Your task to perform on an android device: delete a single message in the gmail app Image 0: 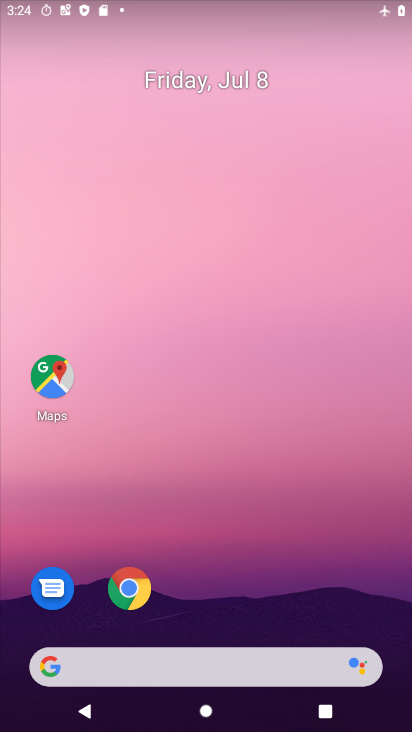
Step 0: press home button
Your task to perform on an android device: delete a single message in the gmail app Image 1: 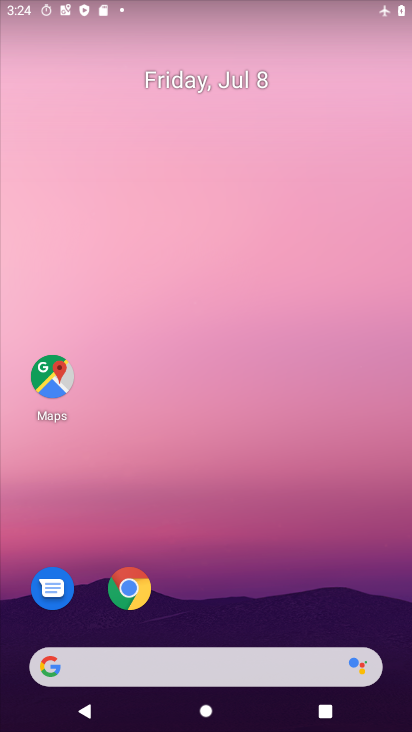
Step 1: drag from (245, 625) to (237, 168)
Your task to perform on an android device: delete a single message in the gmail app Image 2: 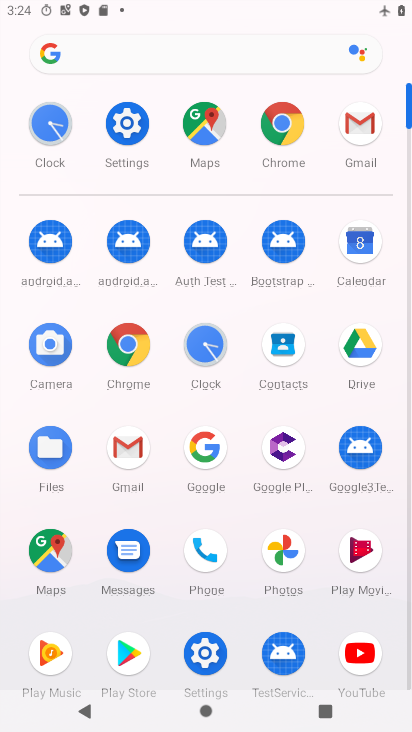
Step 2: click (362, 130)
Your task to perform on an android device: delete a single message in the gmail app Image 3: 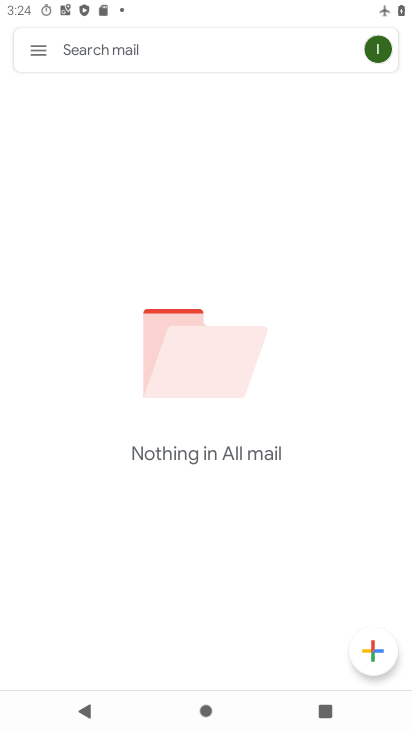
Step 3: click (38, 48)
Your task to perform on an android device: delete a single message in the gmail app Image 4: 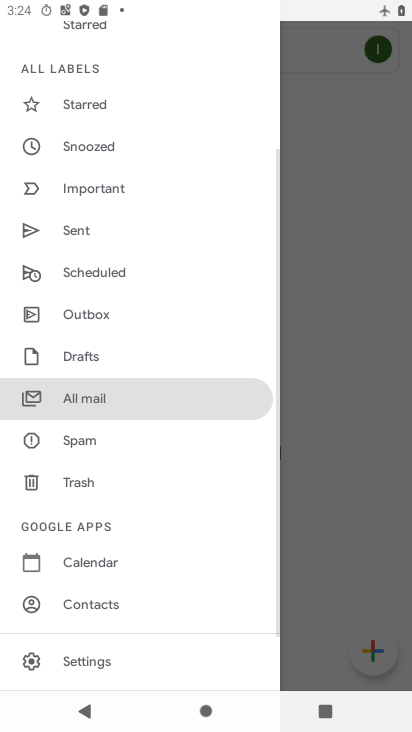
Step 4: click (80, 402)
Your task to perform on an android device: delete a single message in the gmail app Image 5: 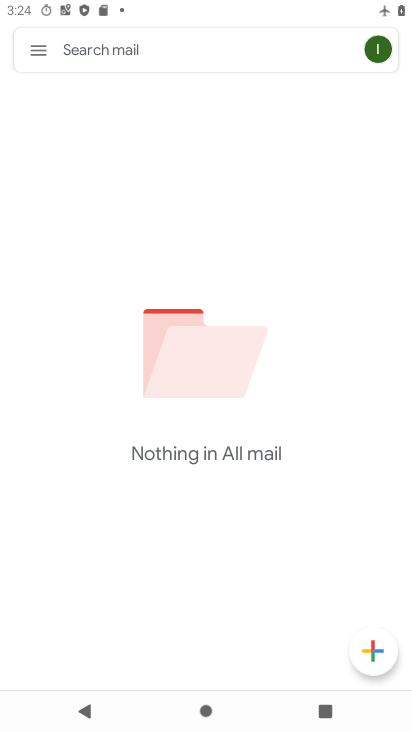
Step 5: task complete